Your task to perform on an android device: Turn on the flashlight Image 0: 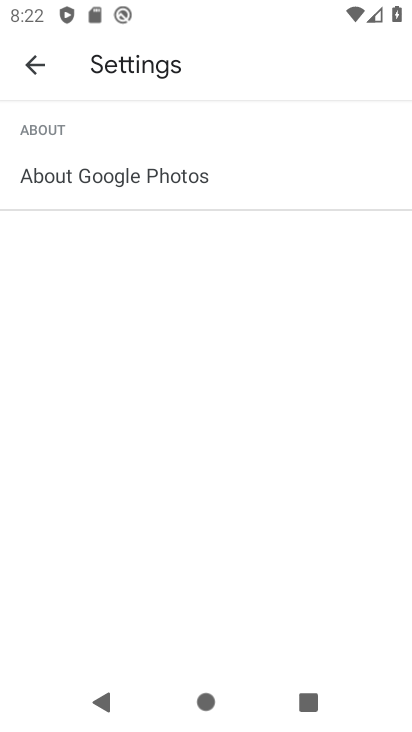
Step 0: drag from (241, 11) to (306, 727)
Your task to perform on an android device: Turn on the flashlight Image 1: 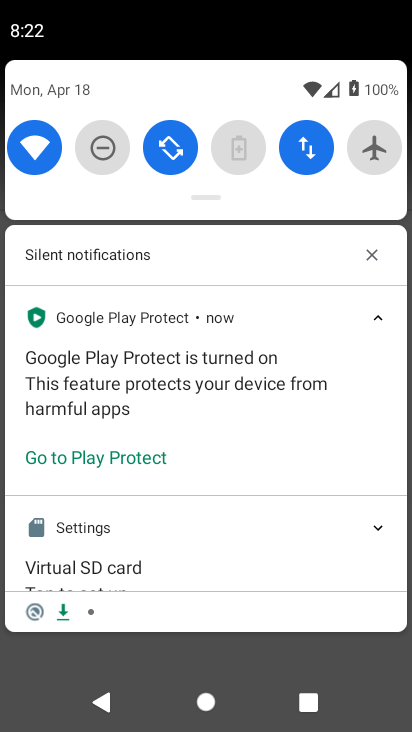
Step 1: drag from (208, 96) to (254, 515)
Your task to perform on an android device: Turn on the flashlight Image 2: 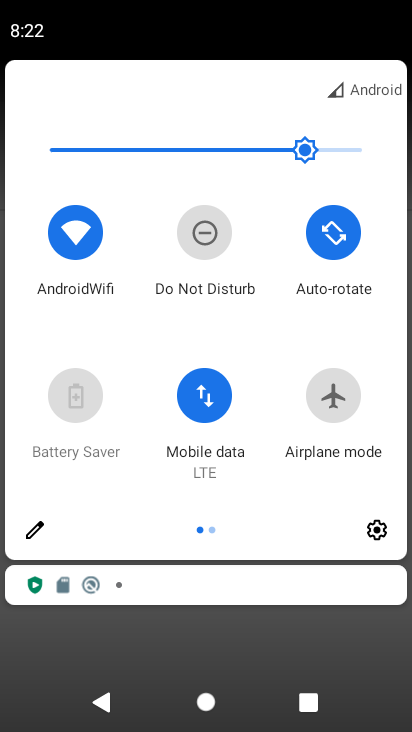
Step 2: click (375, 530)
Your task to perform on an android device: Turn on the flashlight Image 3: 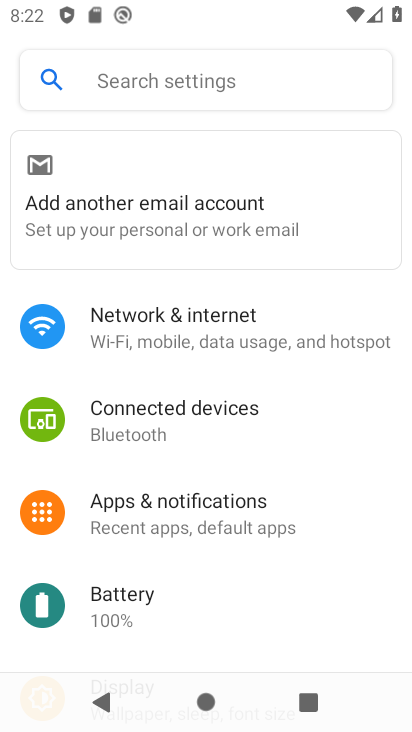
Step 3: task complete